Your task to perform on an android device: Open the web browser Image 0: 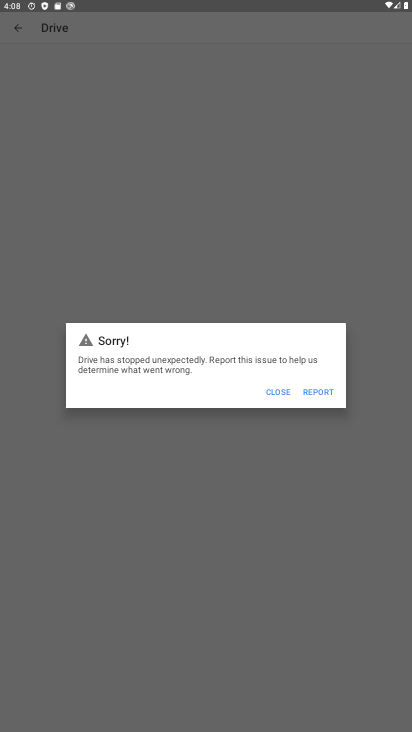
Step 0: drag from (233, 655) to (243, 393)
Your task to perform on an android device: Open the web browser Image 1: 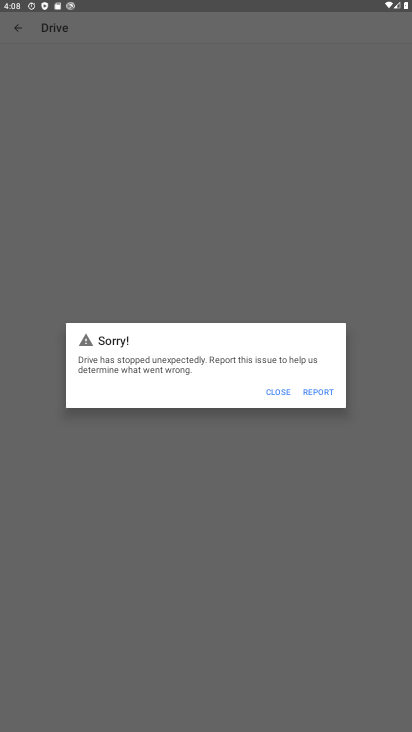
Step 1: press home button
Your task to perform on an android device: Open the web browser Image 2: 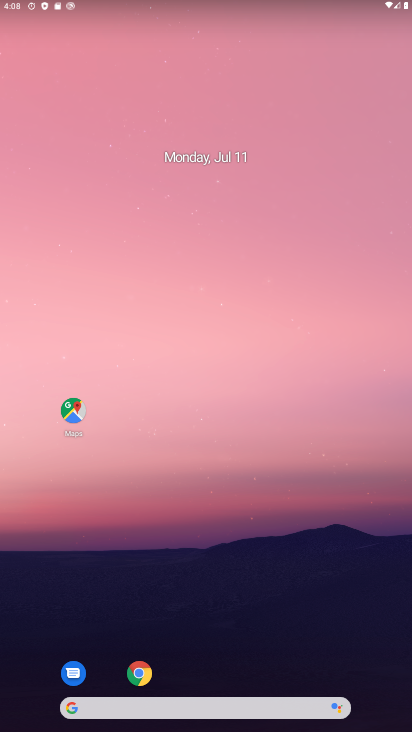
Step 2: click (131, 670)
Your task to perform on an android device: Open the web browser Image 3: 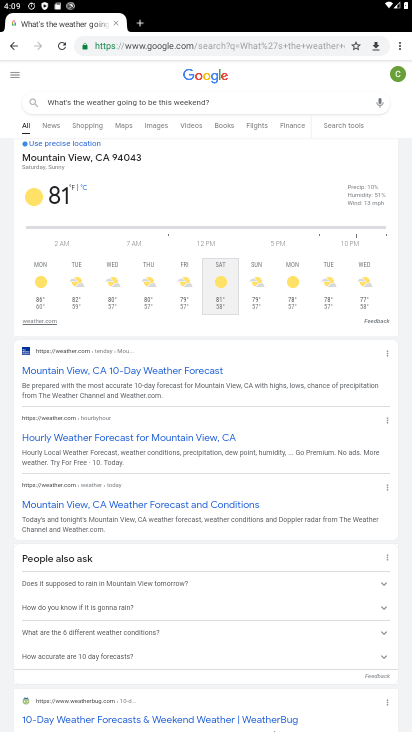
Step 3: click (226, 103)
Your task to perform on an android device: Open the web browser Image 4: 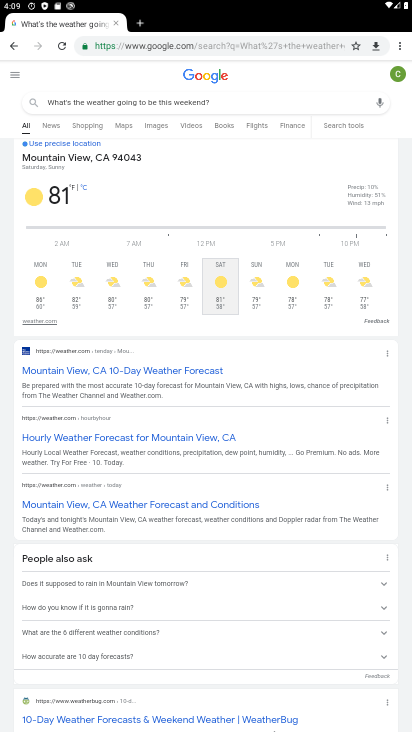
Step 4: click (226, 103)
Your task to perform on an android device: Open the web browser Image 5: 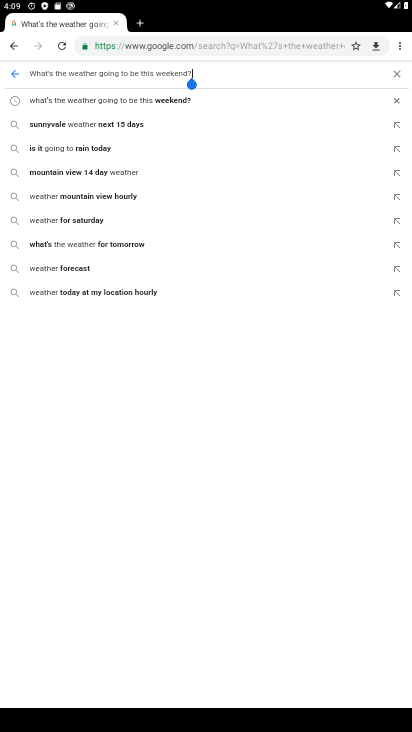
Step 5: click (226, 103)
Your task to perform on an android device: Open the web browser Image 6: 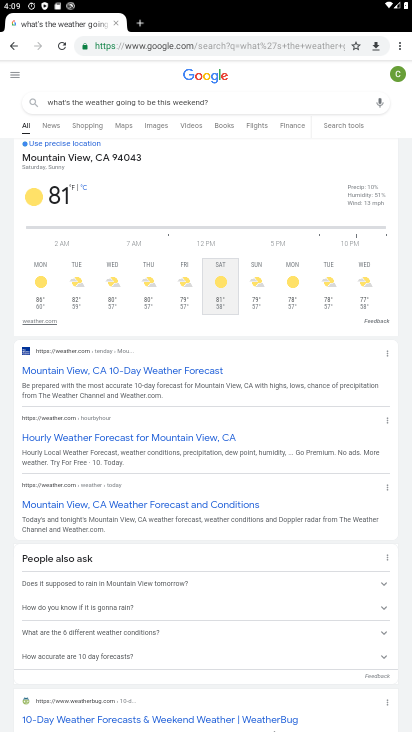
Step 6: click (250, 111)
Your task to perform on an android device: Open the web browser Image 7: 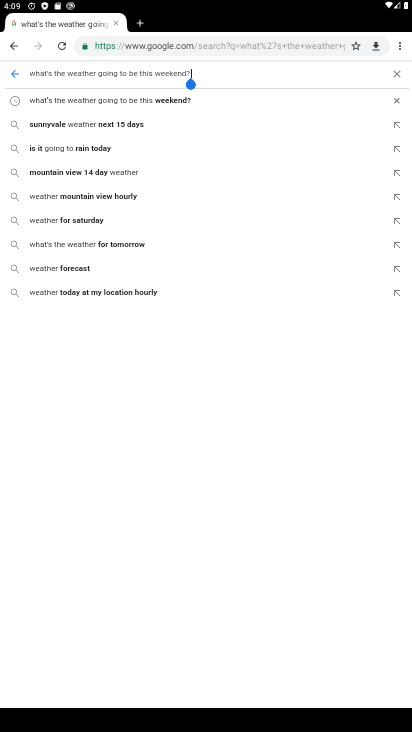
Step 7: click (236, 103)
Your task to perform on an android device: Open the web browser Image 8: 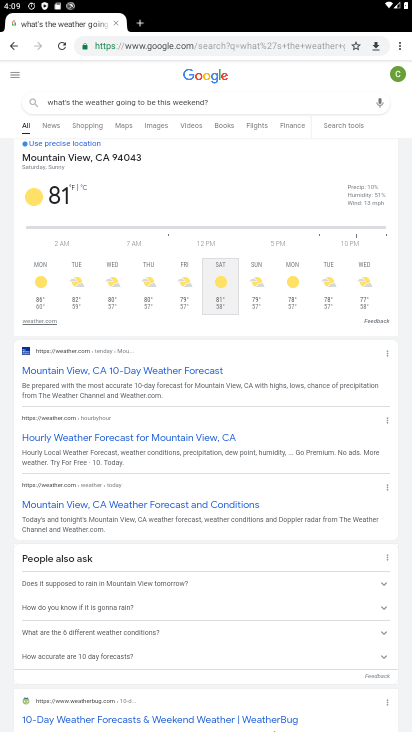
Step 8: click (117, 99)
Your task to perform on an android device: Open the web browser Image 9: 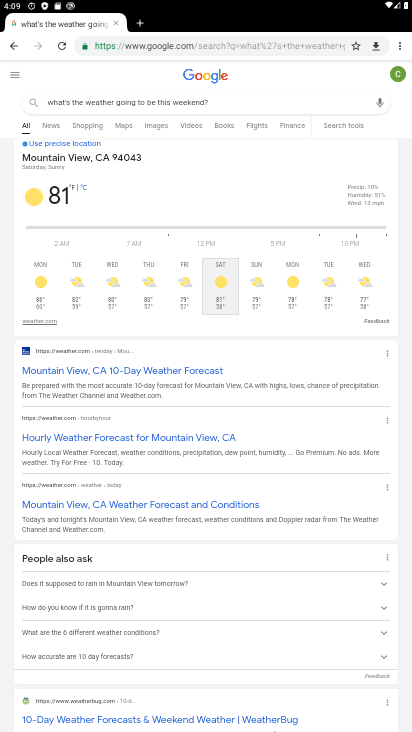
Step 9: click (117, 99)
Your task to perform on an android device: Open the web browser Image 10: 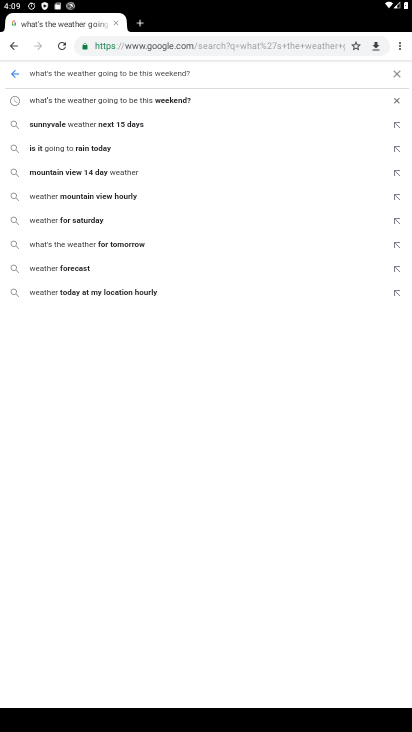
Step 10: click (117, 99)
Your task to perform on an android device: Open the web browser Image 11: 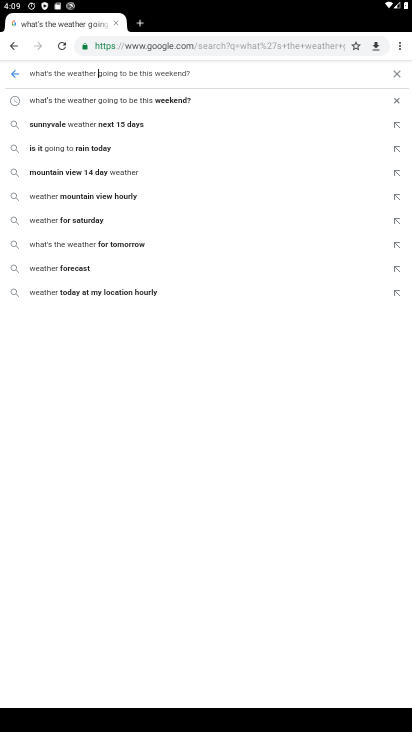
Step 11: click (161, 73)
Your task to perform on an android device: Open the web browser Image 12: 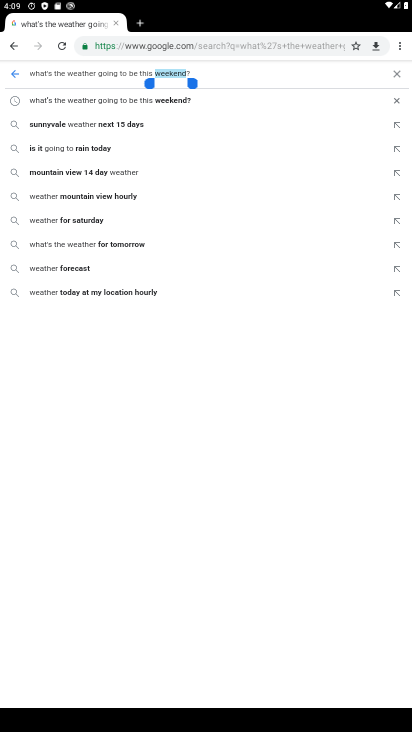
Step 12: click (161, 73)
Your task to perform on an android device: Open the web browser Image 13: 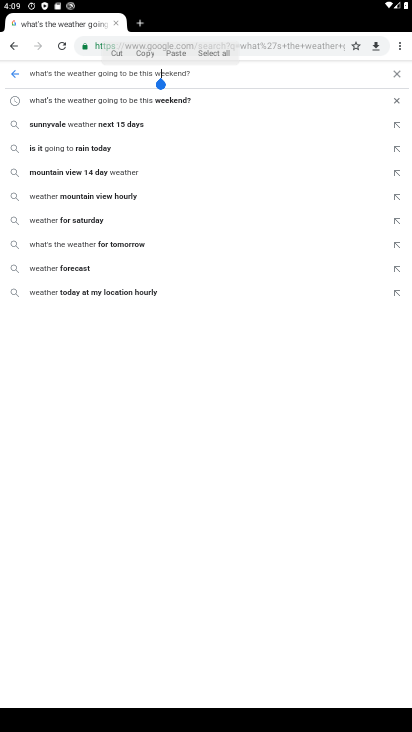
Step 13: click (161, 73)
Your task to perform on an android device: Open the web browser Image 14: 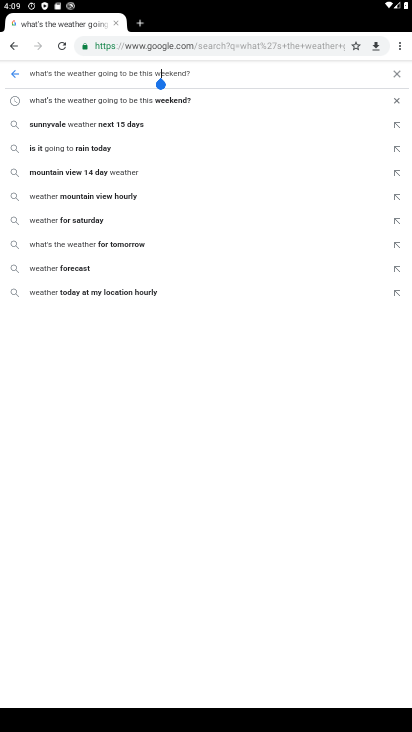
Step 14: click (161, 73)
Your task to perform on an android device: Open the web browser Image 15: 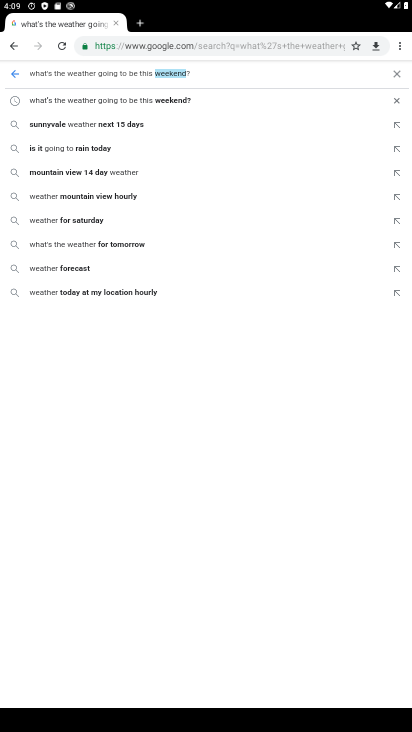
Step 15: click (161, 73)
Your task to perform on an android device: Open the web browser Image 16: 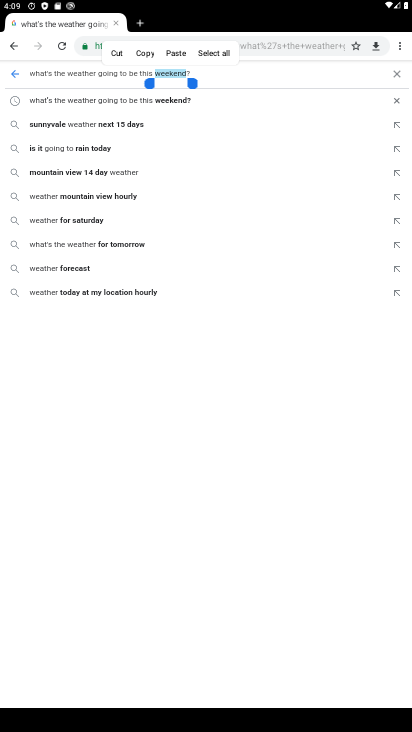
Step 16: click (161, 73)
Your task to perform on an android device: Open the web browser Image 17: 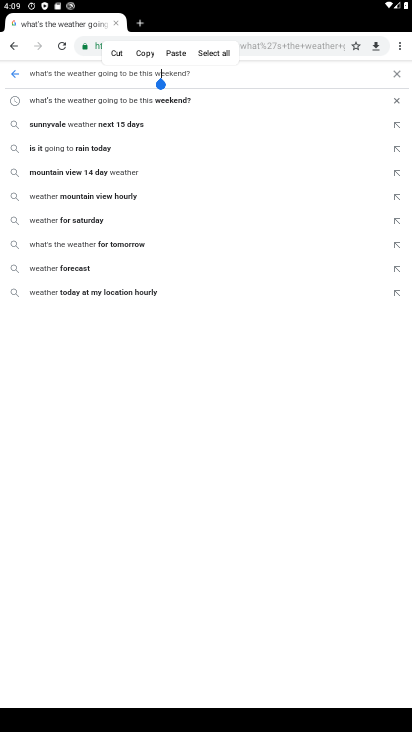
Step 17: click (161, 73)
Your task to perform on an android device: Open the web browser Image 18: 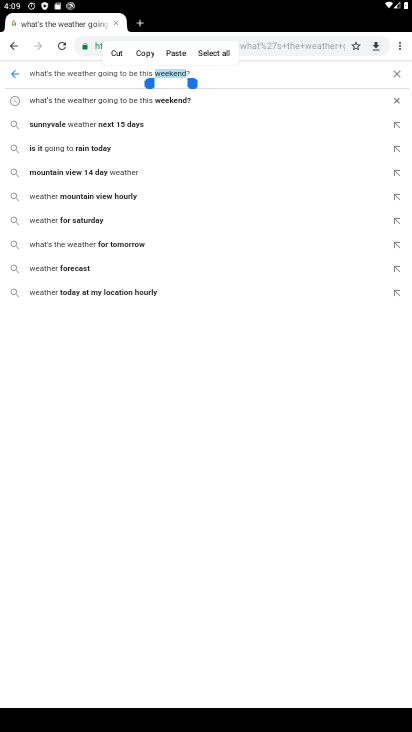
Step 18: click (161, 73)
Your task to perform on an android device: Open the web browser Image 19: 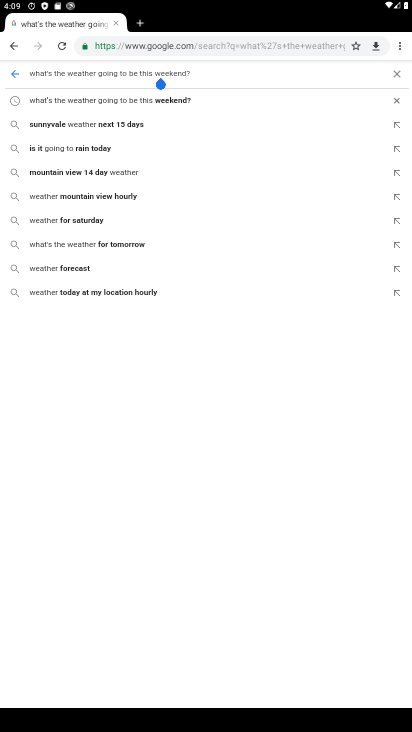
Step 19: click (155, 73)
Your task to perform on an android device: Open the web browser Image 20: 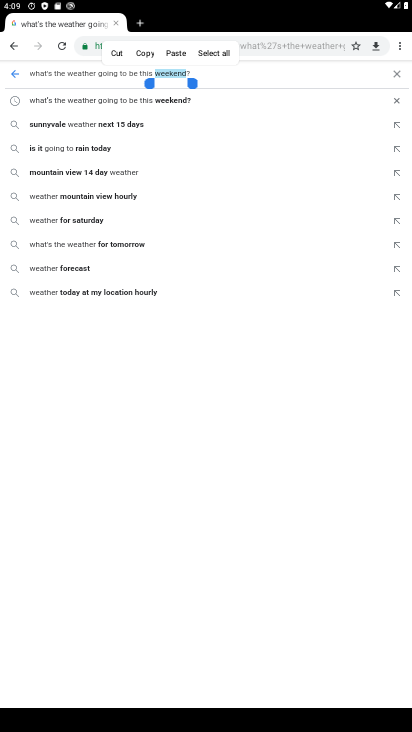
Step 20: click (155, 73)
Your task to perform on an android device: Open the web browser Image 21: 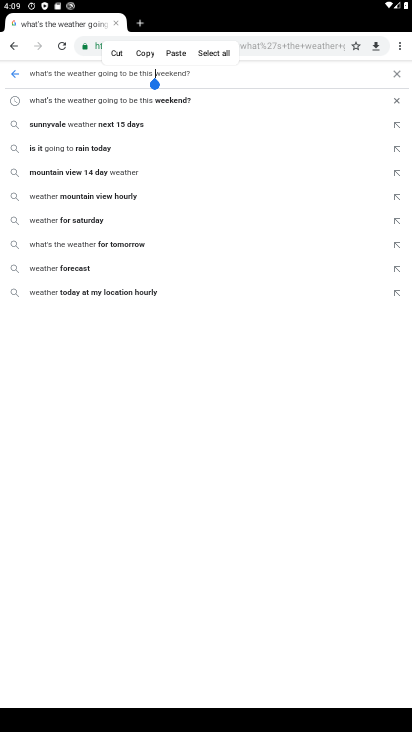
Step 21: click (155, 73)
Your task to perform on an android device: Open the web browser Image 22: 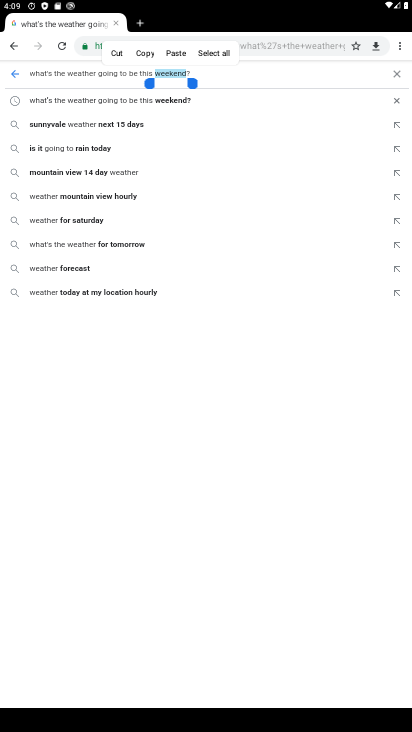
Step 22: drag from (148, 82) to (1, 63)
Your task to perform on an android device: Open the web browser Image 23: 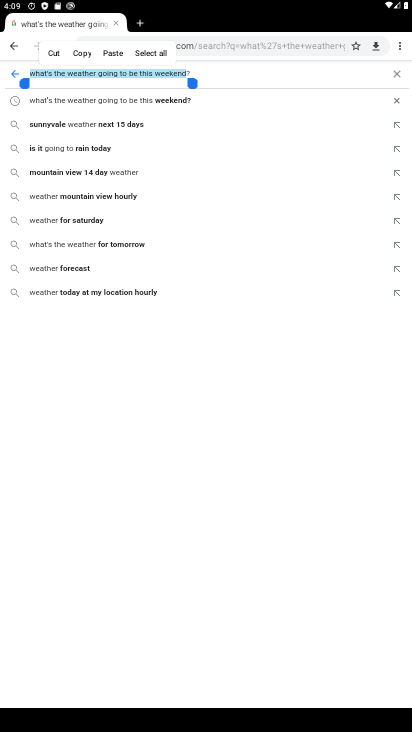
Step 23: click (191, 86)
Your task to perform on an android device: Open the web browser Image 24: 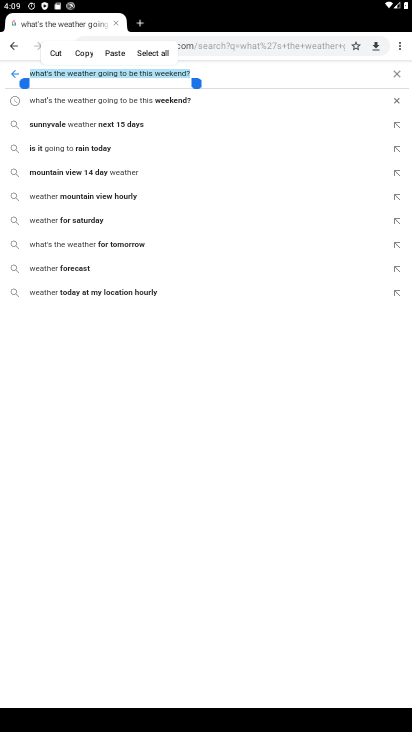
Step 24: click (400, 70)
Your task to perform on an android device: Open the web browser Image 25: 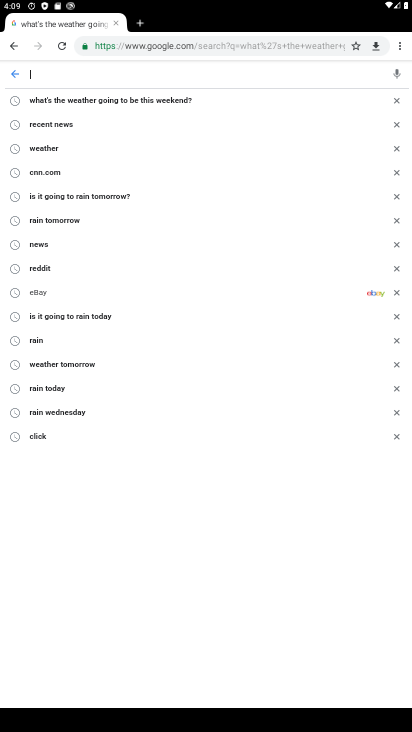
Step 25: type "web browser"
Your task to perform on an android device: Open the web browser Image 26: 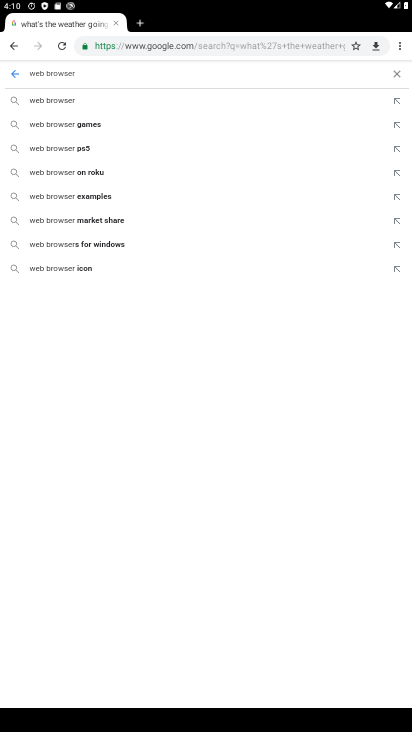
Step 26: click (48, 99)
Your task to perform on an android device: Open the web browser Image 27: 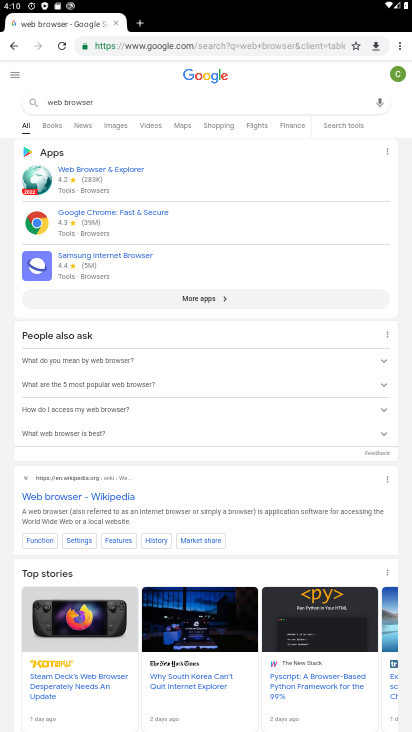
Step 27: click (49, 126)
Your task to perform on an android device: Open the web browser Image 28: 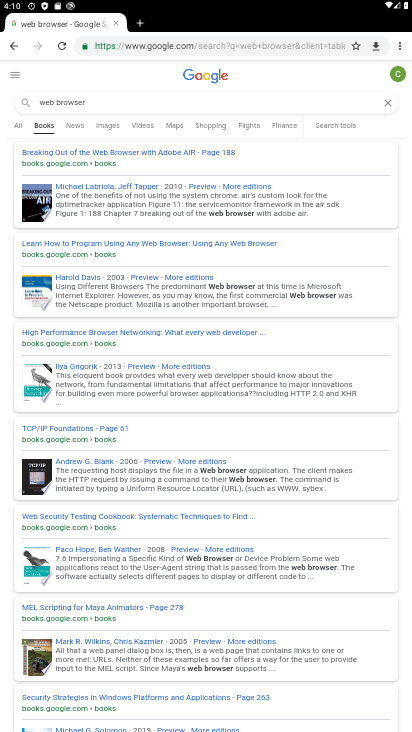
Step 28: click (21, 124)
Your task to perform on an android device: Open the web browser Image 29: 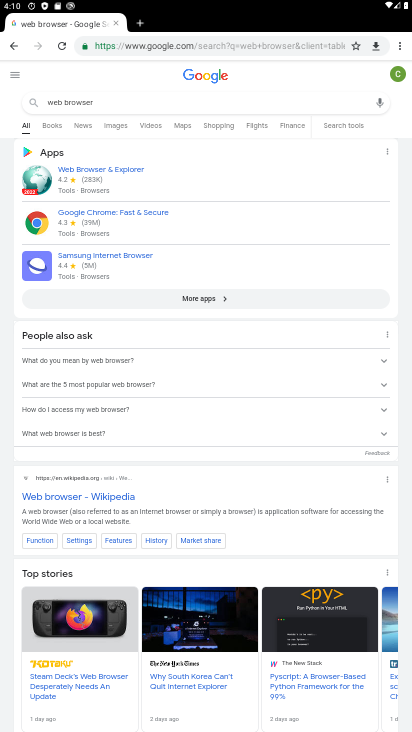
Step 29: task complete